Your task to perform on an android device: turn on bluetooth scan Image 0: 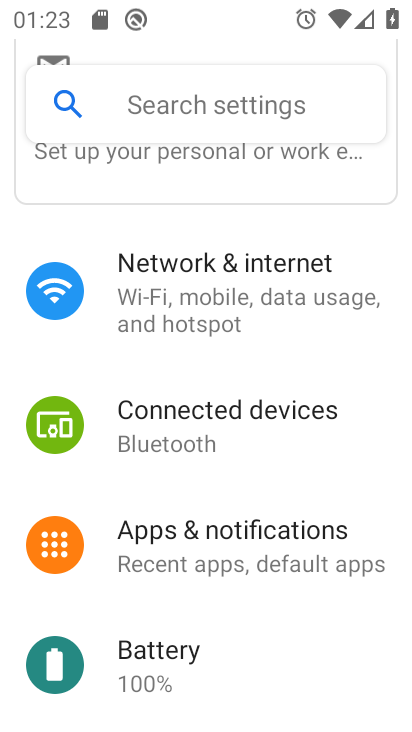
Step 0: press home button
Your task to perform on an android device: turn on bluetooth scan Image 1: 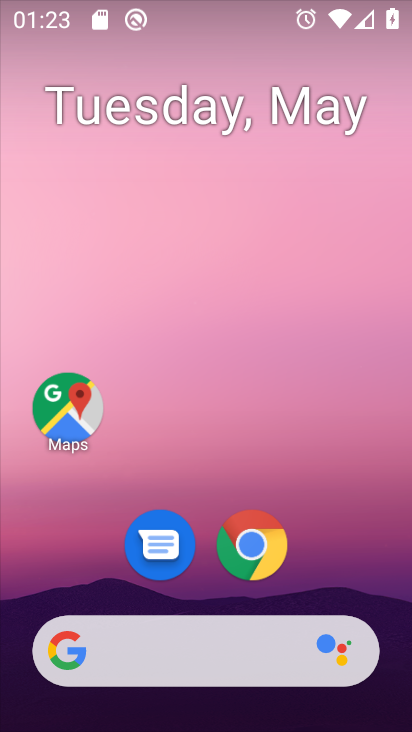
Step 1: drag from (341, 591) to (354, 9)
Your task to perform on an android device: turn on bluetooth scan Image 2: 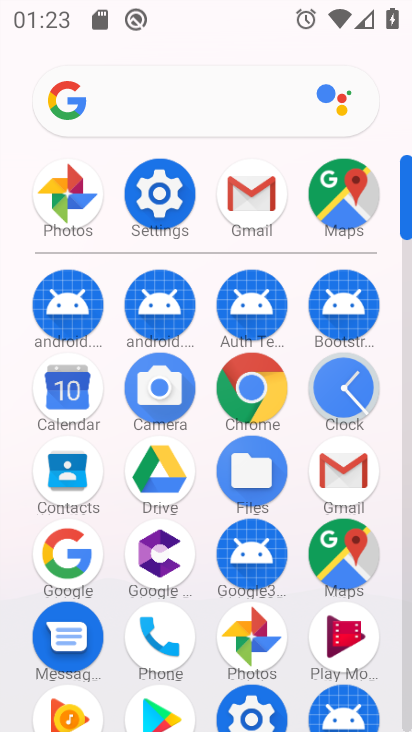
Step 2: click (171, 201)
Your task to perform on an android device: turn on bluetooth scan Image 3: 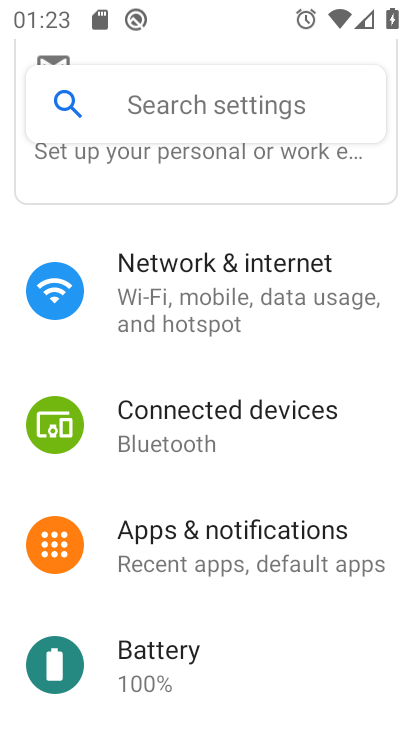
Step 3: drag from (209, 565) to (208, 454)
Your task to perform on an android device: turn on bluetooth scan Image 4: 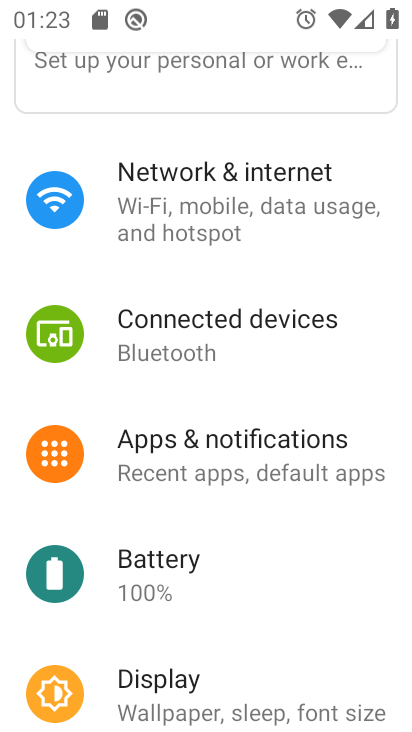
Step 4: drag from (216, 570) to (244, 408)
Your task to perform on an android device: turn on bluetooth scan Image 5: 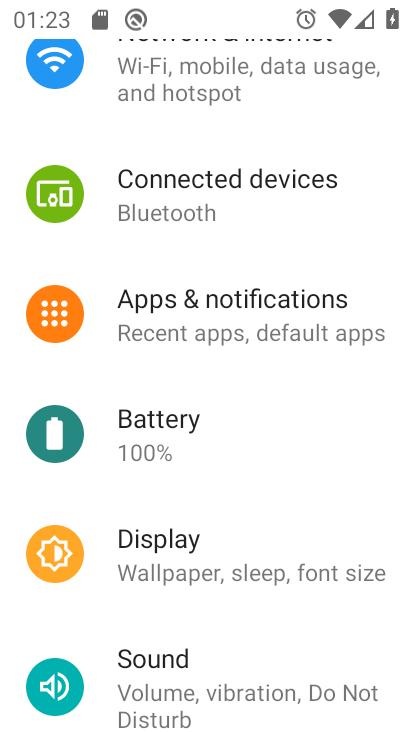
Step 5: drag from (218, 608) to (241, 465)
Your task to perform on an android device: turn on bluetooth scan Image 6: 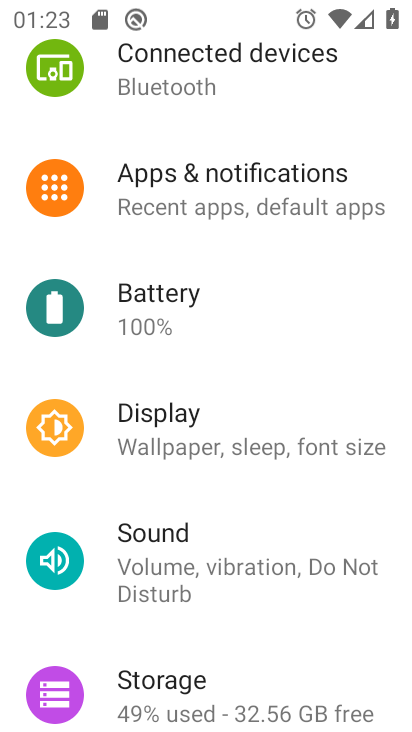
Step 6: drag from (208, 582) to (210, 394)
Your task to perform on an android device: turn on bluetooth scan Image 7: 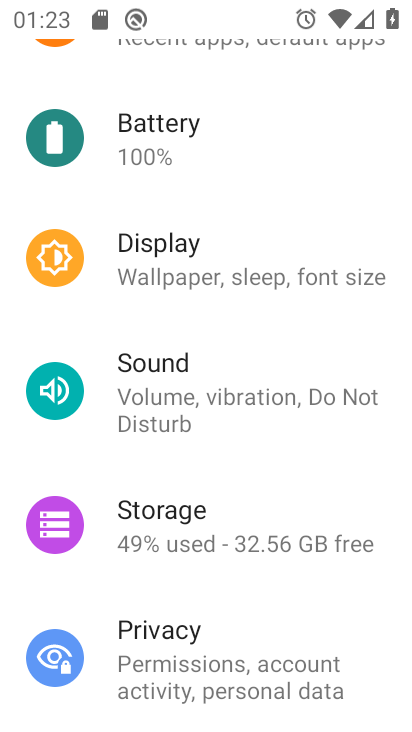
Step 7: drag from (212, 512) to (235, 354)
Your task to perform on an android device: turn on bluetooth scan Image 8: 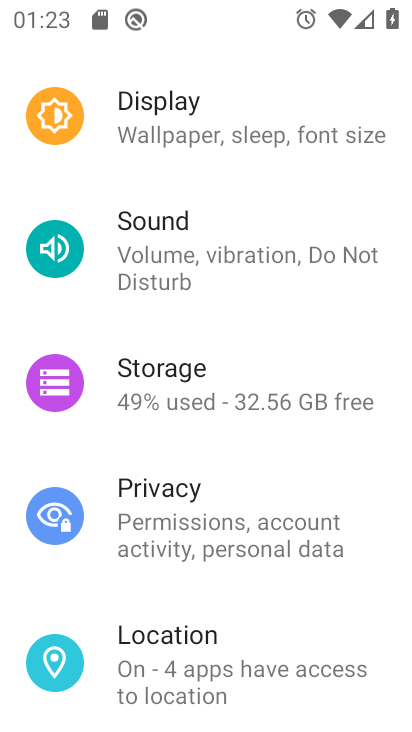
Step 8: click (172, 641)
Your task to perform on an android device: turn on bluetooth scan Image 9: 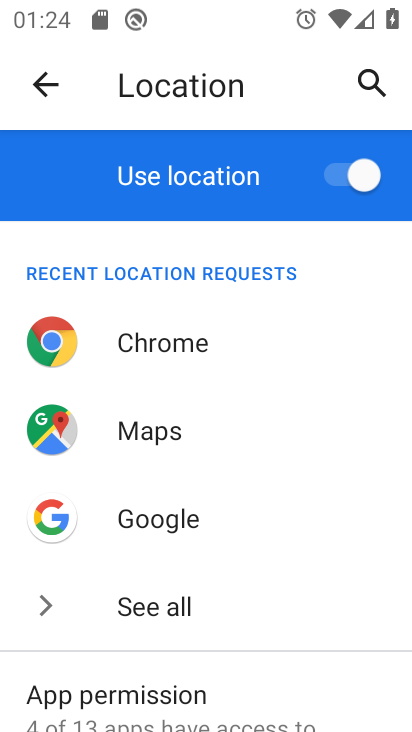
Step 9: drag from (177, 607) to (234, 274)
Your task to perform on an android device: turn on bluetooth scan Image 10: 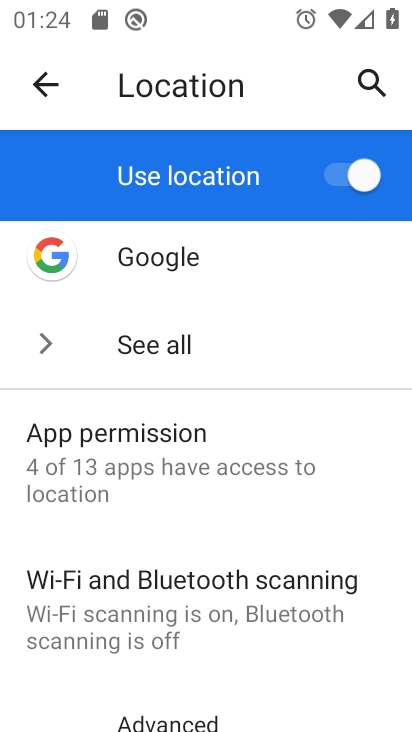
Step 10: click (182, 561)
Your task to perform on an android device: turn on bluetooth scan Image 11: 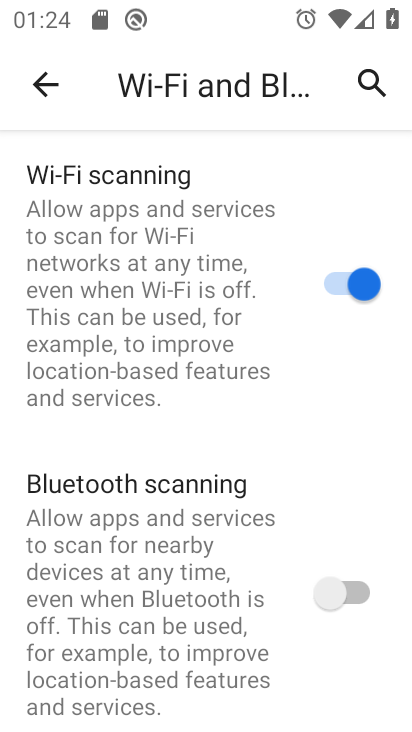
Step 11: click (364, 583)
Your task to perform on an android device: turn on bluetooth scan Image 12: 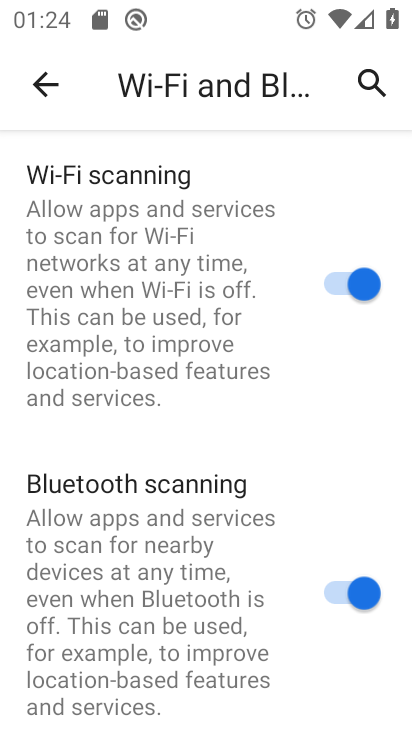
Step 12: task complete